Your task to perform on an android device: toggle sleep mode Image 0: 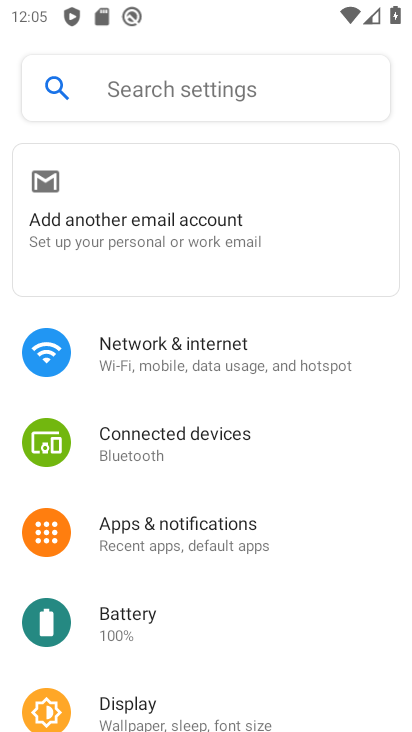
Step 0: drag from (222, 562) to (225, 262)
Your task to perform on an android device: toggle sleep mode Image 1: 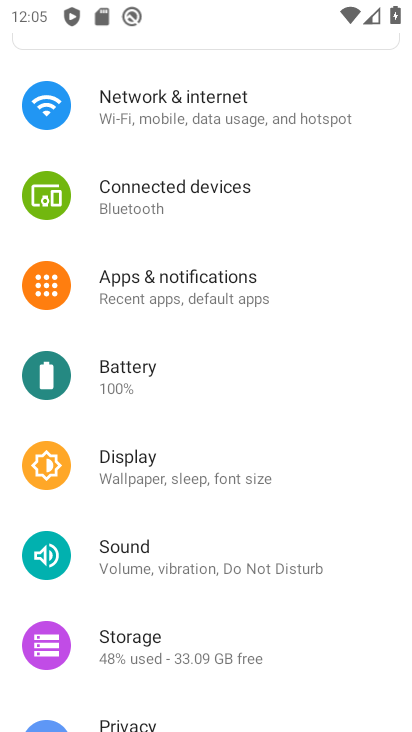
Step 1: click (170, 470)
Your task to perform on an android device: toggle sleep mode Image 2: 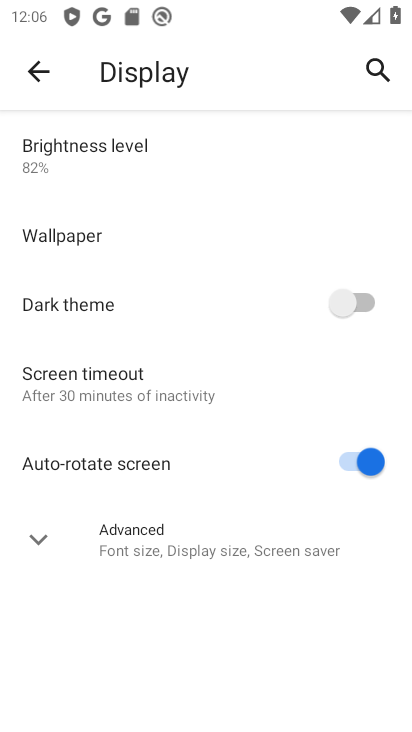
Step 2: click (197, 513)
Your task to perform on an android device: toggle sleep mode Image 3: 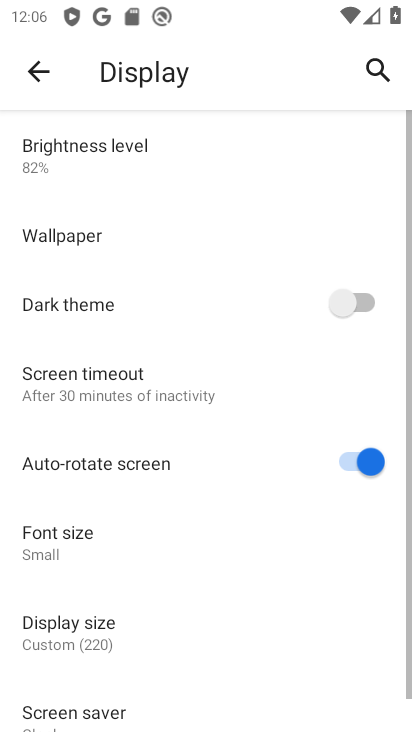
Step 3: task complete